Your task to perform on an android device: turn off improve location accuracy Image 0: 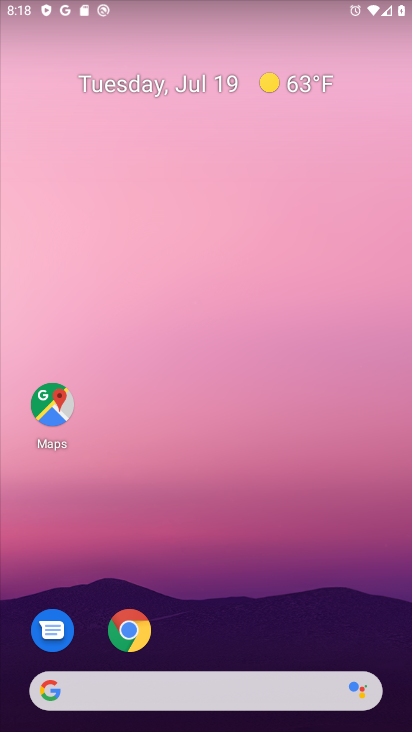
Step 0: drag from (274, 613) to (257, 209)
Your task to perform on an android device: turn off improve location accuracy Image 1: 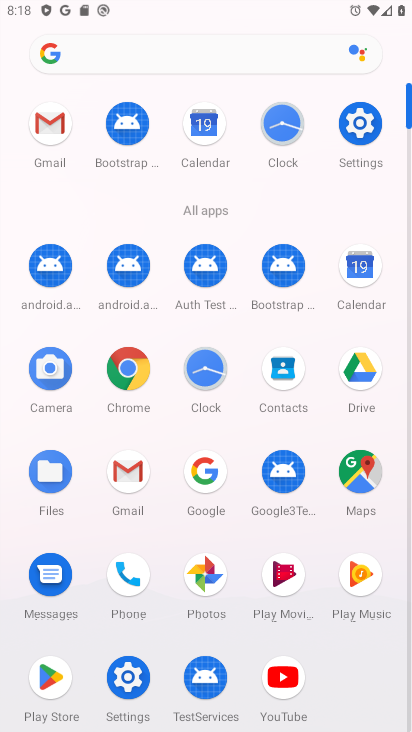
Step 1: click (366, 112)
Your task to perform on an android device: turn off improve location accuracy Image 2: 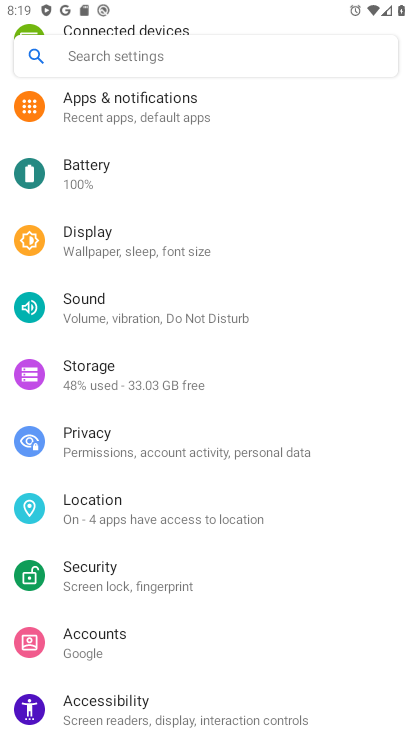
Step 2: click (80, 504)
Your task to perform on an android device: turn off improve location accuracy Image 3: 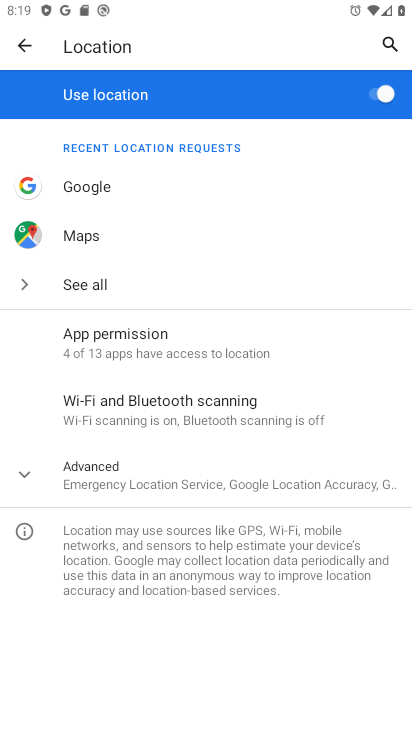
Step 3: click (119, 465)
Your task to perform on an android device: turn off improve location accuracy Image 4: 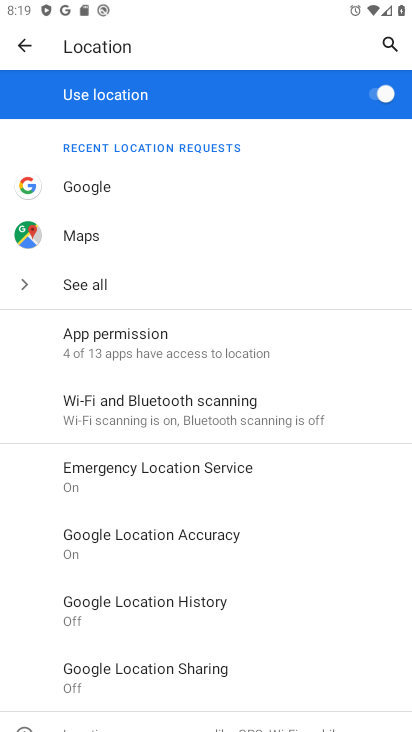
Step 4: click (196, 541)
Your task to perform on an android device: turn off improve location accuracy Image 5: 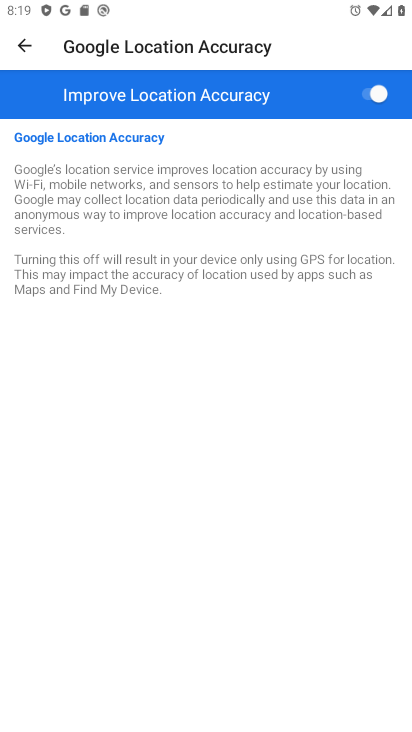
Step 5: click (381, 95)
Your task to perform on an android device: turn off improve location accuracy Image 6: 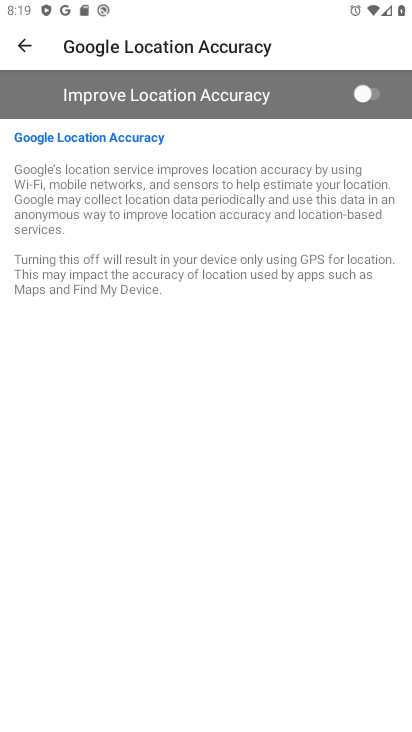
Step 6: task complete